Your task to perform on an android device: What's the weather going to be this weekend? Image 0: 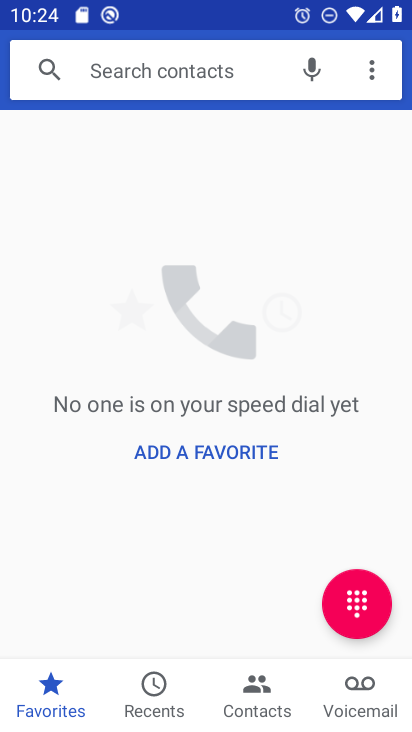
Step 0: press home button
Your task to perform on an android device: What's the weather going to be this weekend? Image 1: 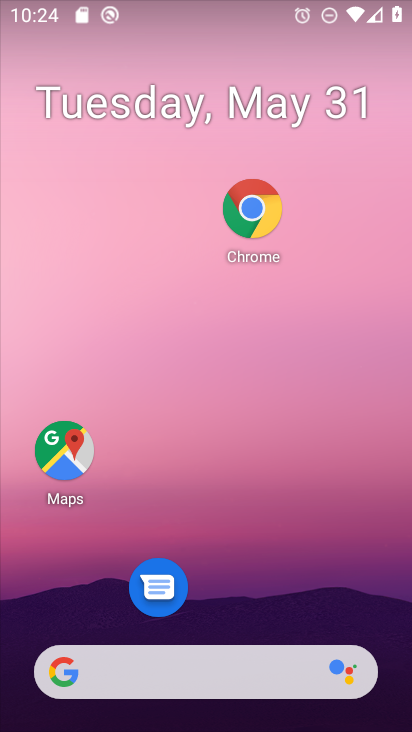
Step 1: drag from (20, 332) to (400, 359)
Your task to perform on an android device: What's the weather going to be this weekend? Image 2: 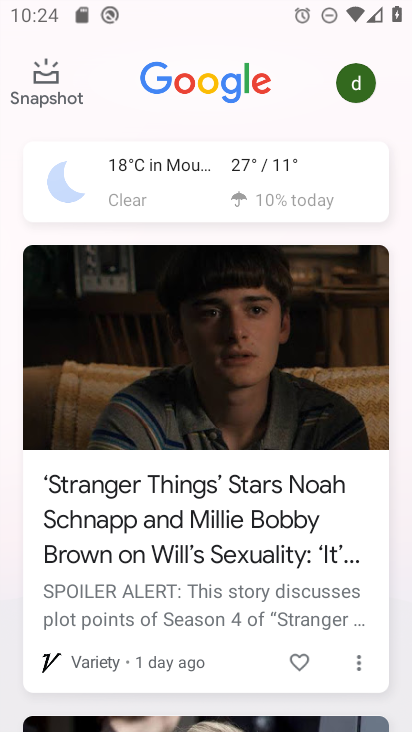
Step 2: click (264, 160)
Your task to perform on an android device: What's the weather going to be this weekend? Image 3: 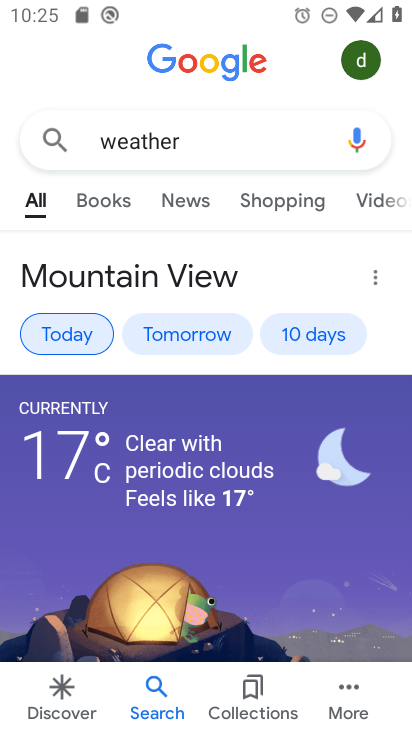
Step 3: click (319, 339)
Your task to perform on an android device: What's the weather going to be this weekend? Image 4: 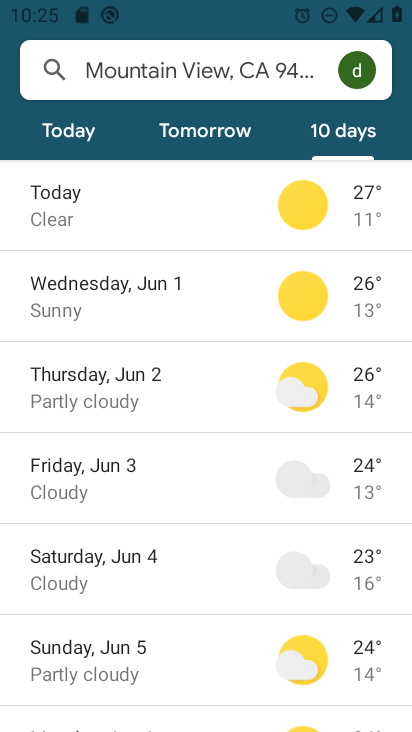
Step 4: task complete